Your task to perform on an android device: make emails show in primary in the gmail app Image 0: 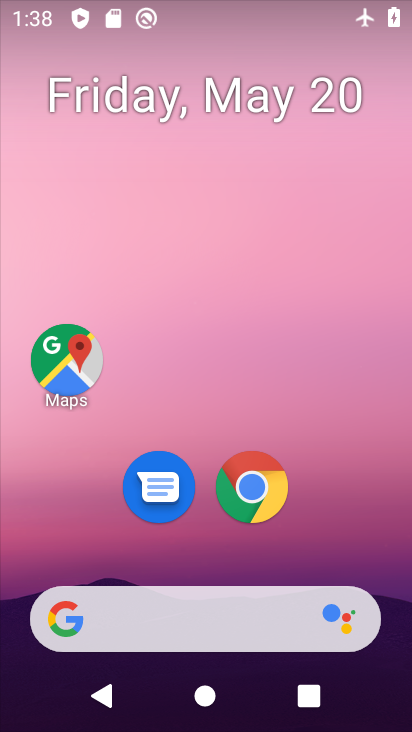
Step 0: drag from (339, 518) to (308, 1)
Your task to perform on an android device: make emails show in primary in the gmail app Image 1: 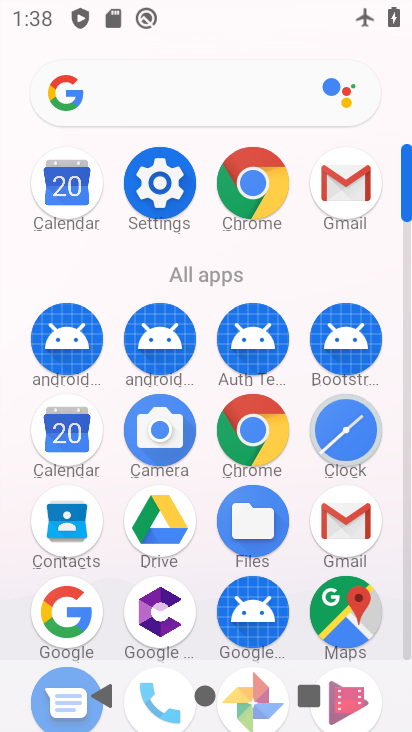
Step 1: click (346, 176)
Your task to perform on an android device: make emails show in primary in the gmail app Image 2: 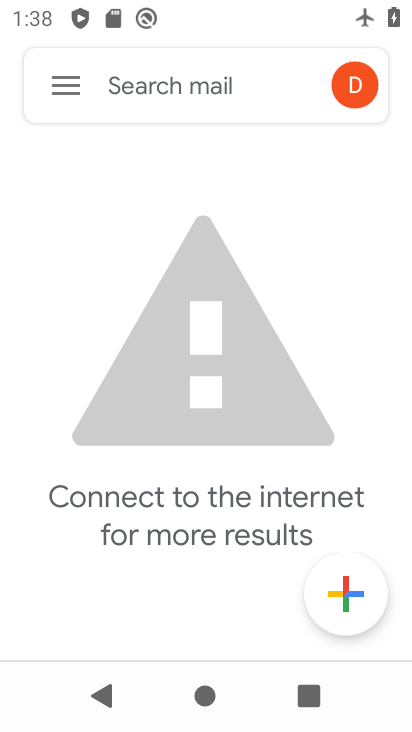
Step 2: task complete